Your task to perform on an android device: Clear the cart on ebay.com. Search for "dell alienware" on ebay.com, select the first entry, add it to the cart, then select checkout. Image 0: 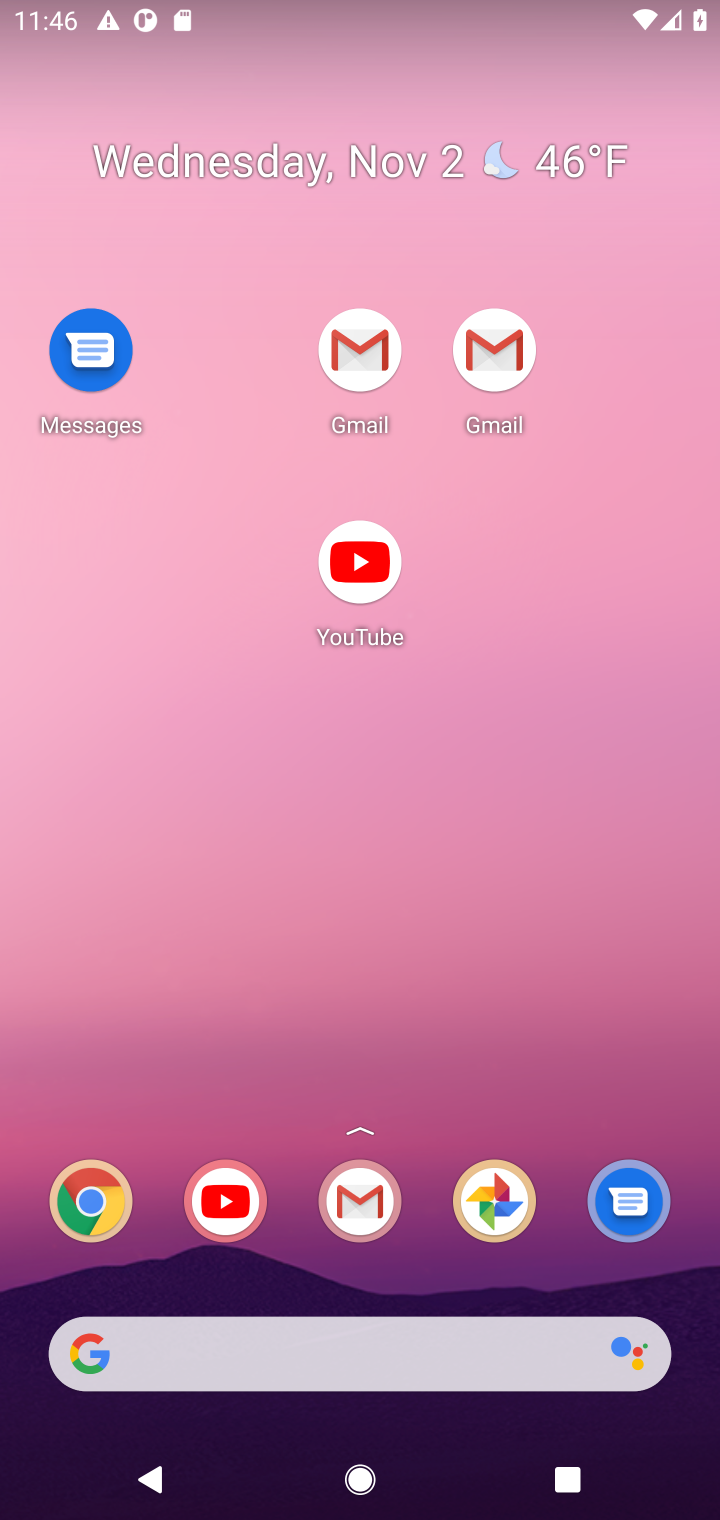
Step 0: drag from (432, 1223) to (448, 488)
Your task to perform on an android device: Clear the cart on ebay.com. Search for "dell alienware" on ebay.com, select the first entry, add it to the cart, then select checkout. Image 1: 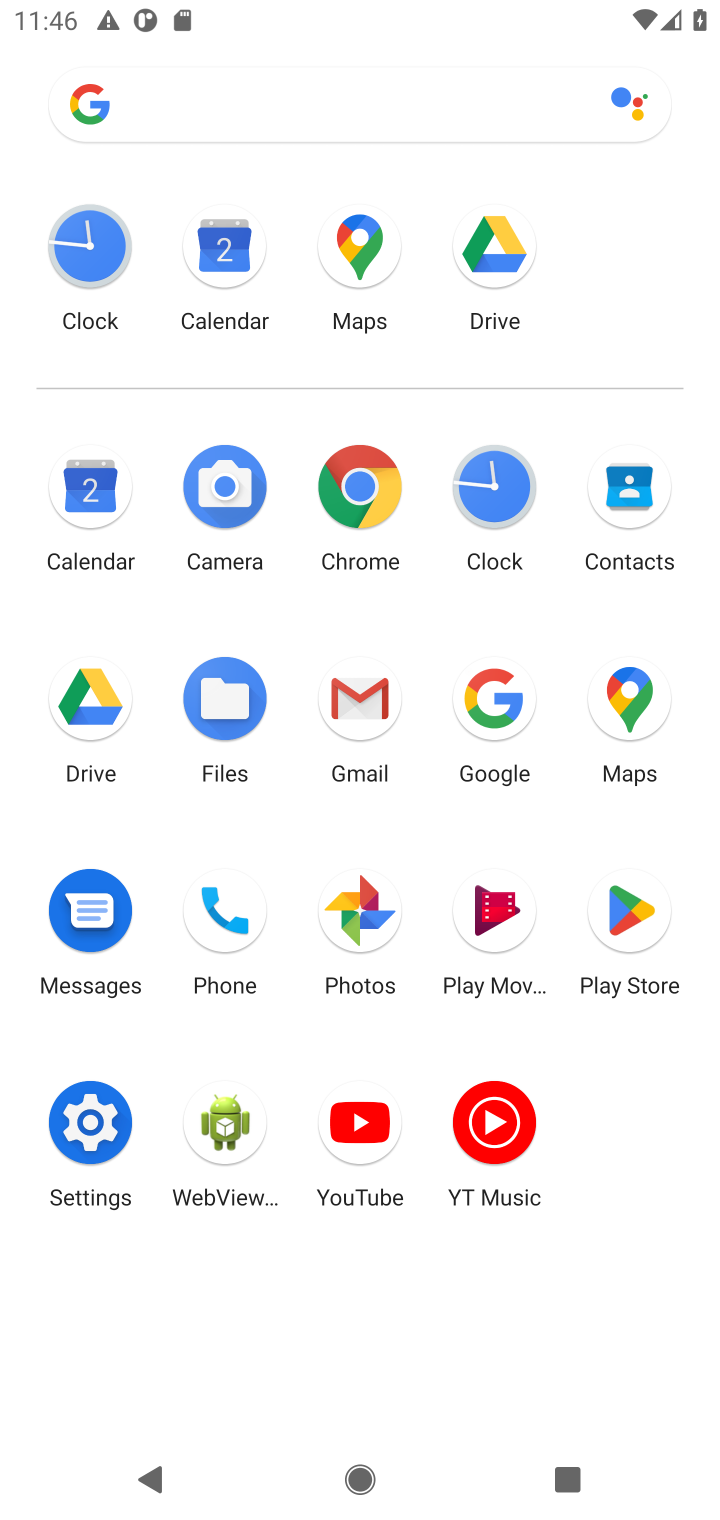
Step 1: click (350, 487)
Your task to perform on an android device: Clear the cart on ebay.com. Search for "dell alienware" on ebay.com, select the first entry, add it to the cart, then select checkout. Image 2: 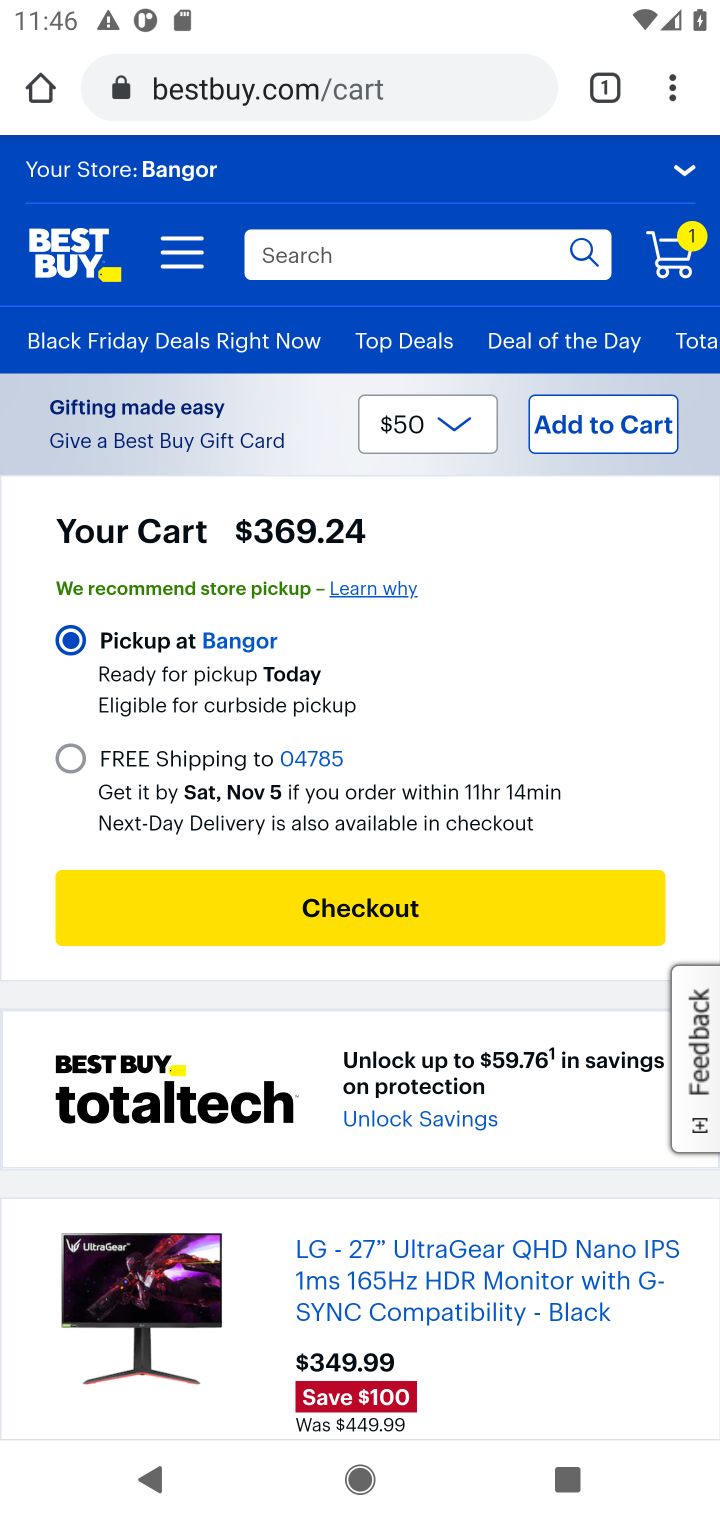
Step 2: click (389, 77)
Your task to perform on an android device: Clear the cart on ebay.com. Search for "dell alienware" on ebay.com, select the first entry, add it to the cart, then select checkout. Image 3: 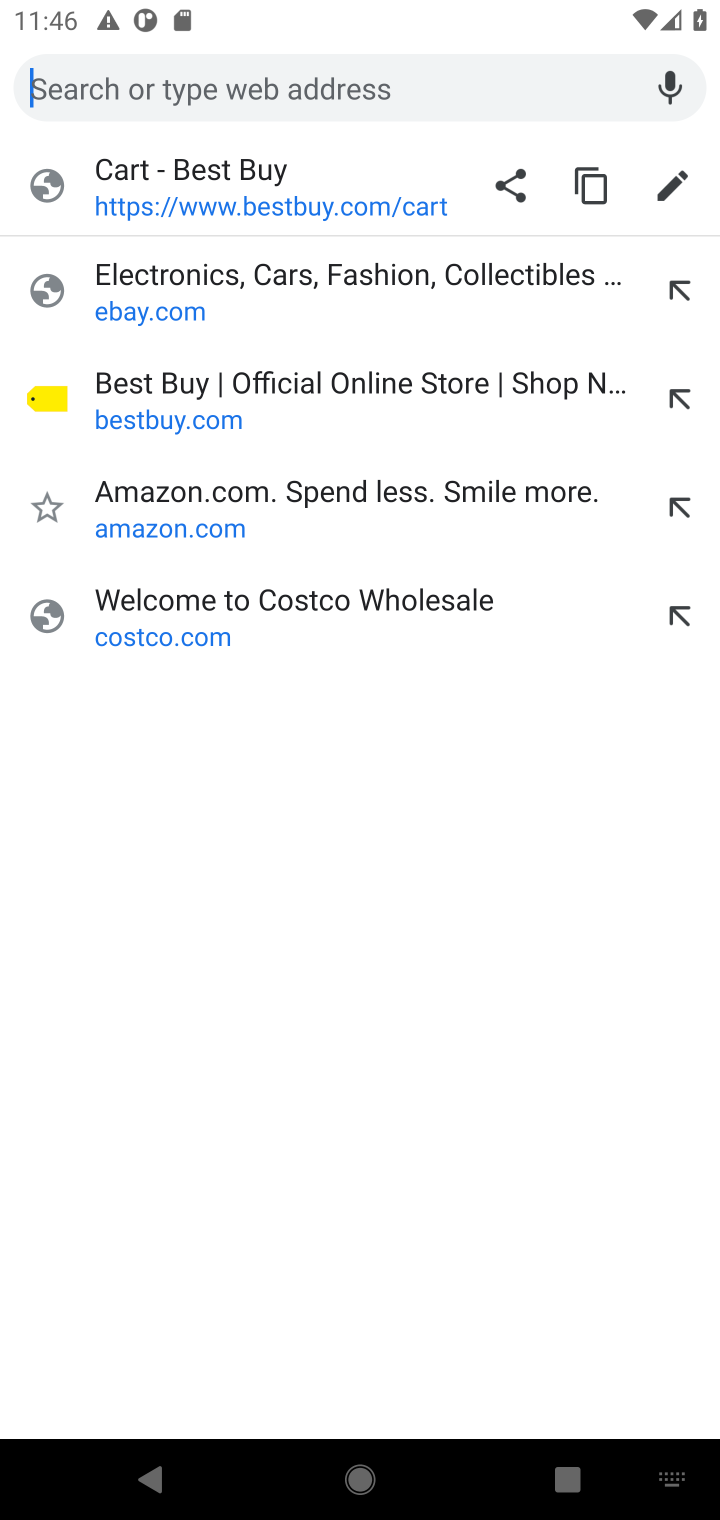
Step 3: type "ebay. om"
Your task to perform on an android device: Clear the cart on ebay.com. Search for "dell alienware" on ebay.com, select the first entry, add it to the cart, then select checkout. Image 4: 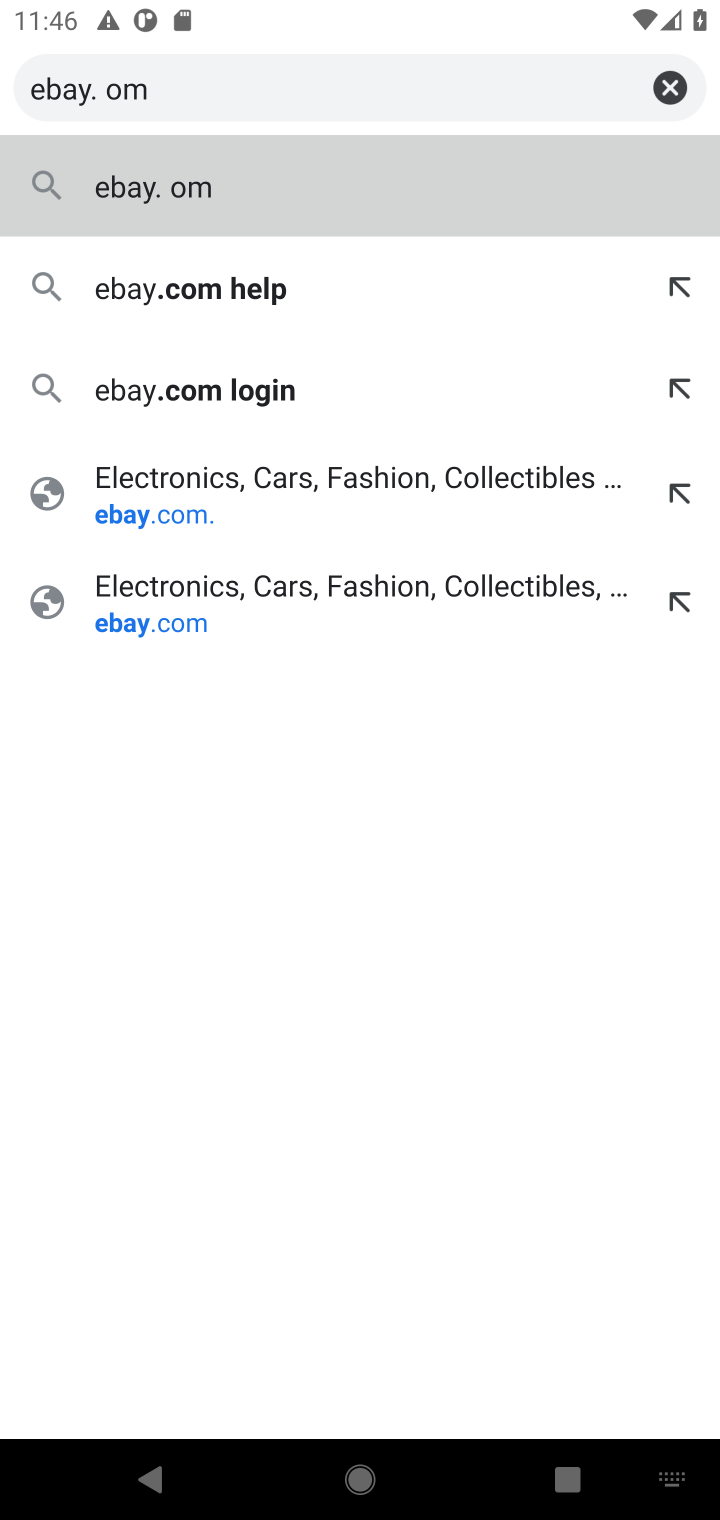
Step 4: press enter
Your task to perform on an android device: Clear the cart on ebay.com. Search for "dell alienware" on ebay.com, select the first entry, add it to the cart, then select checkout. Image 5: 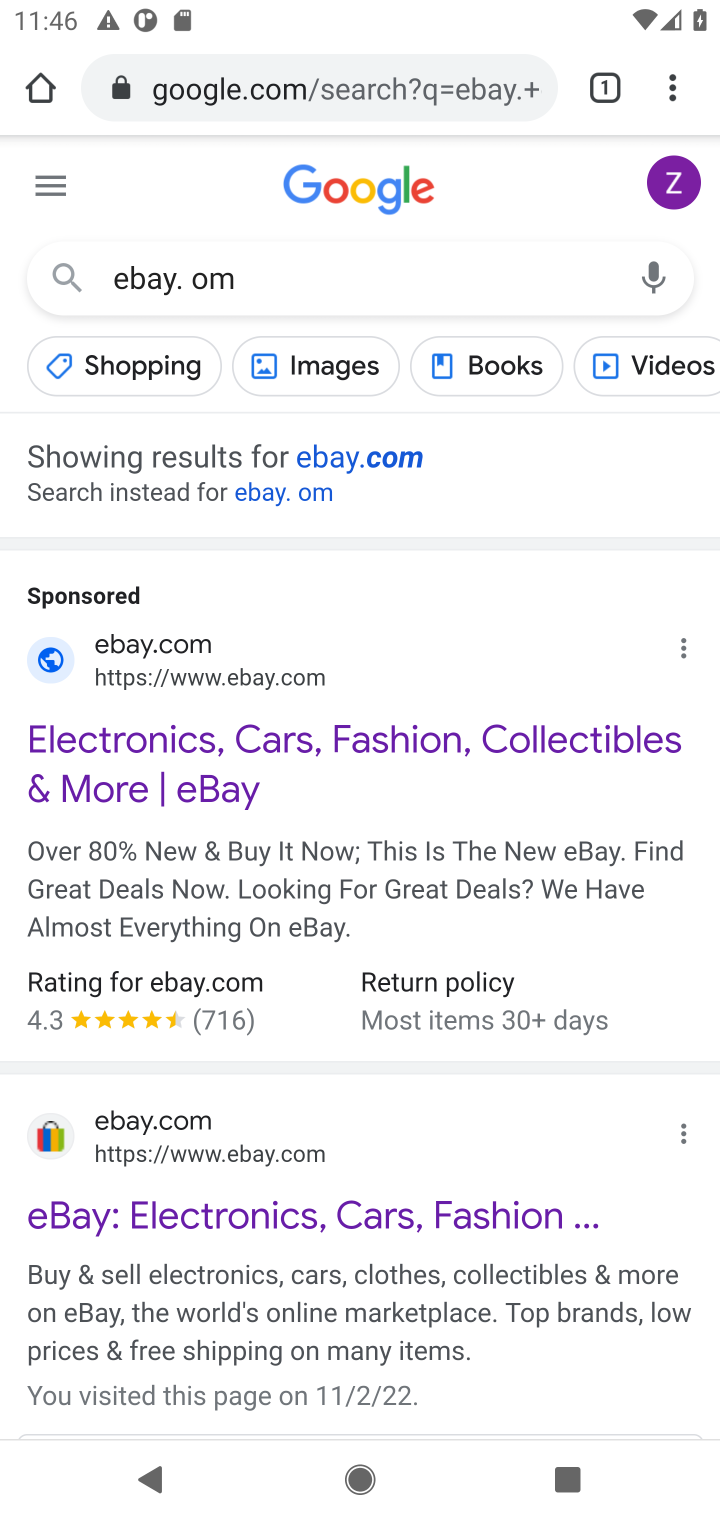
Step 5: click (291, 1220)
Your task to perform on an android device: Clear the cart on ebay.com. Search for "dell alienware" on ebay.com, select the first entry, add it to the cart, then select checkout. Image 6: 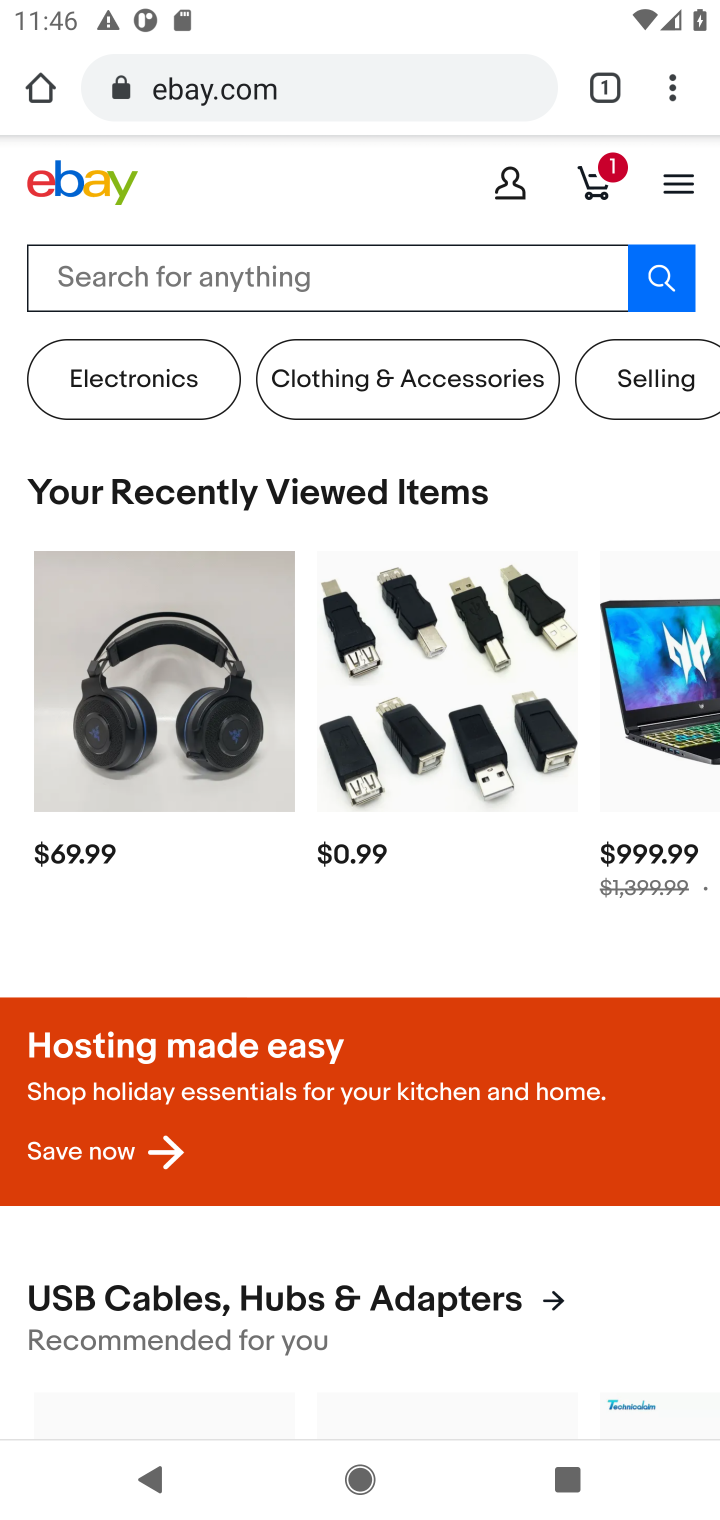
Step 6: click (387, 283)
Your task to perform on an android device: Clear the cart on ebay.com. Search for "dell alienware" on ebay.com, select the first entry, add it to the cart, then select checkout. Image 7: 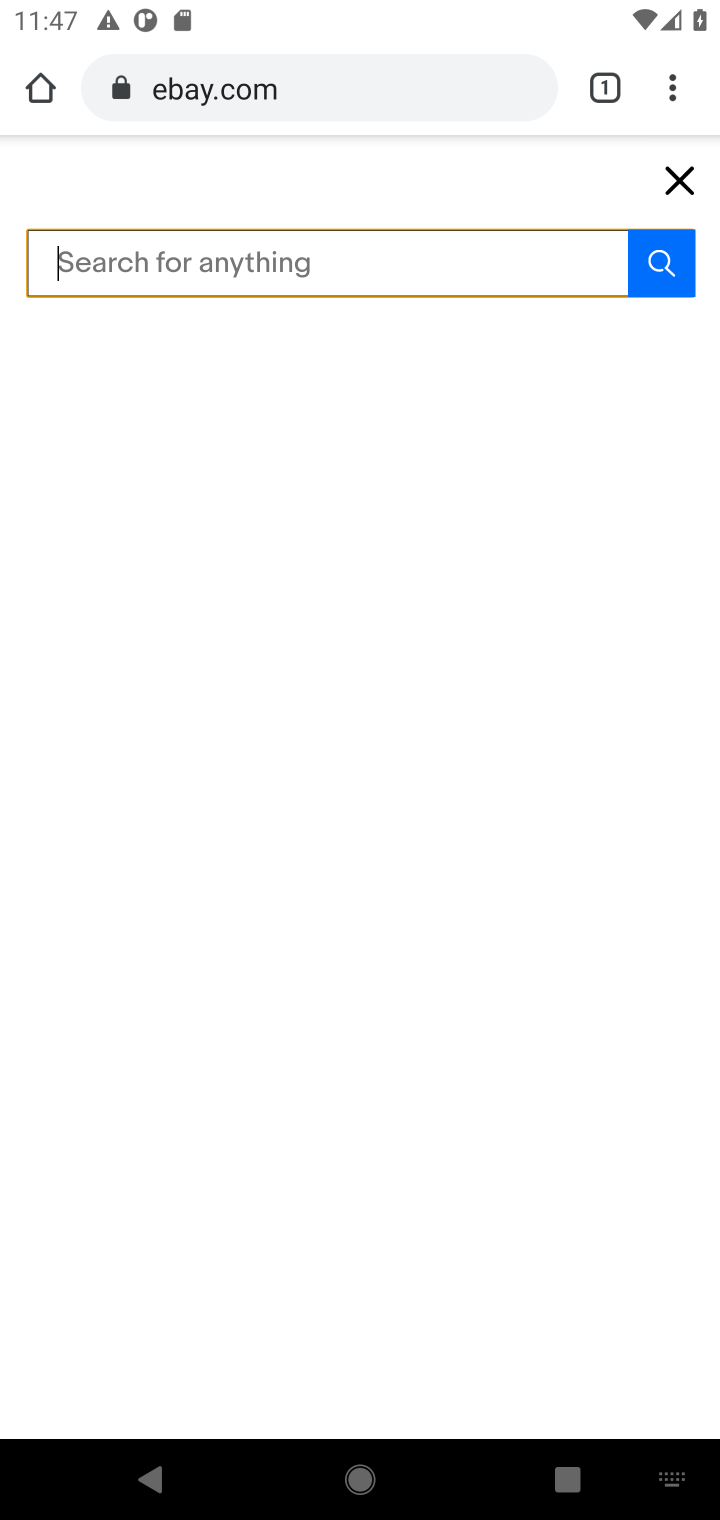
Step 7: click (687, 174)
Your task to perform on an android device: Clear the cart on ebay.com. Search for "dell alienware" on ebay.com, select the first entry, add it to the cart, then select checkout. Image 8: 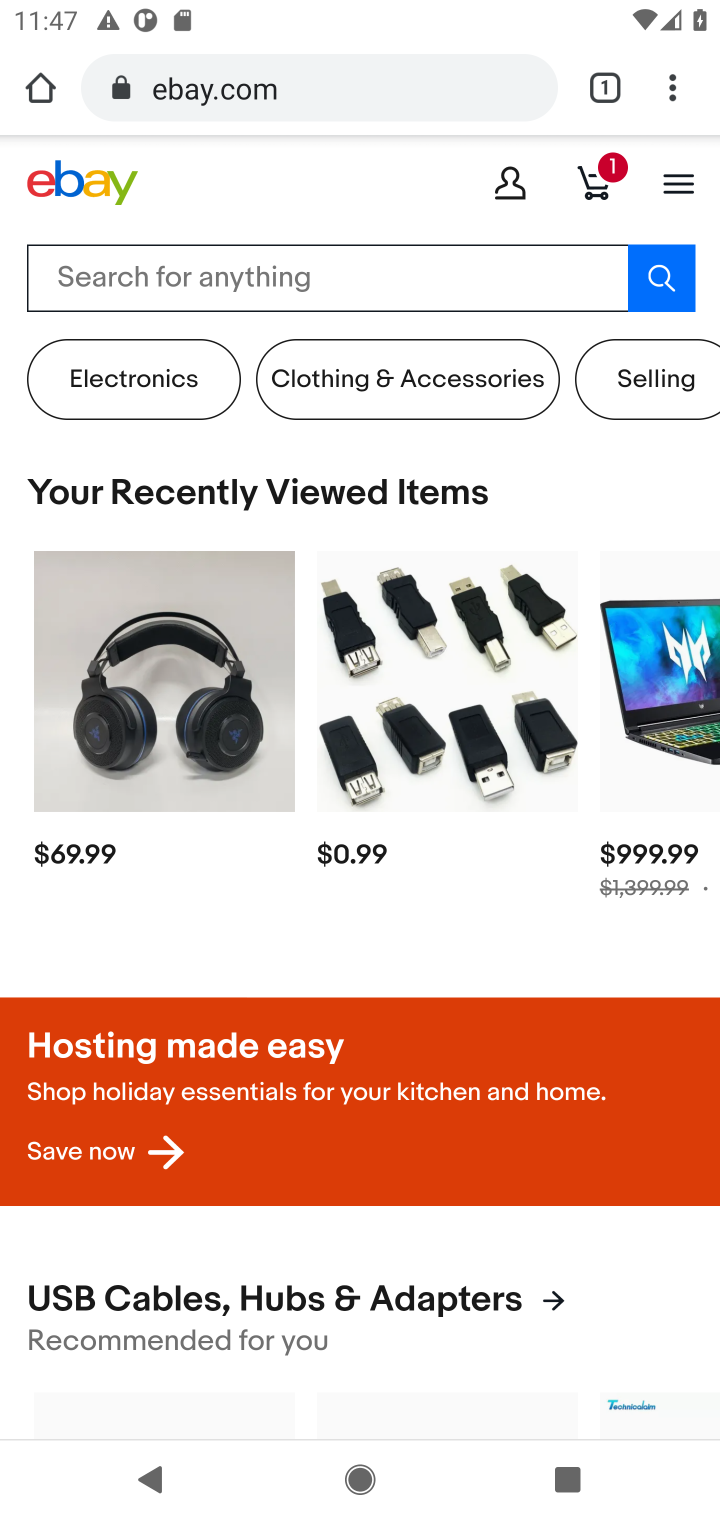
Step 8: click (604, 179)
Your task to perform on an android device: Clear the cart on ebay.com. Search for "dell alienware" on ebay.com, select the first entry, add it to the cart, then select checkout. Image 9: 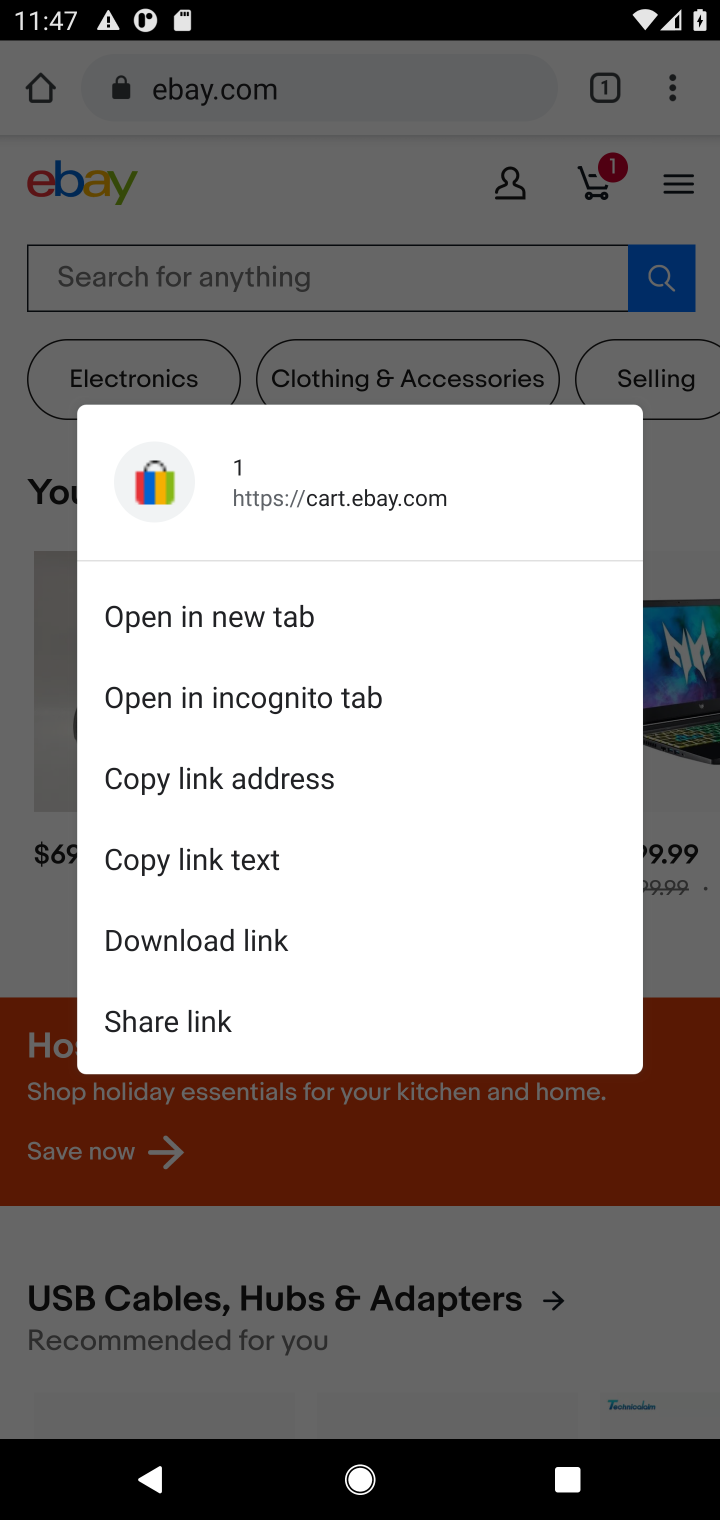
Step 9: click (604, 179)
Your task to perform on an android device: Clear the cart on ebay.com. Search for "dell alienware" on ebay.com, select the first entry, add it to the cart, then select checkout. Image 10: 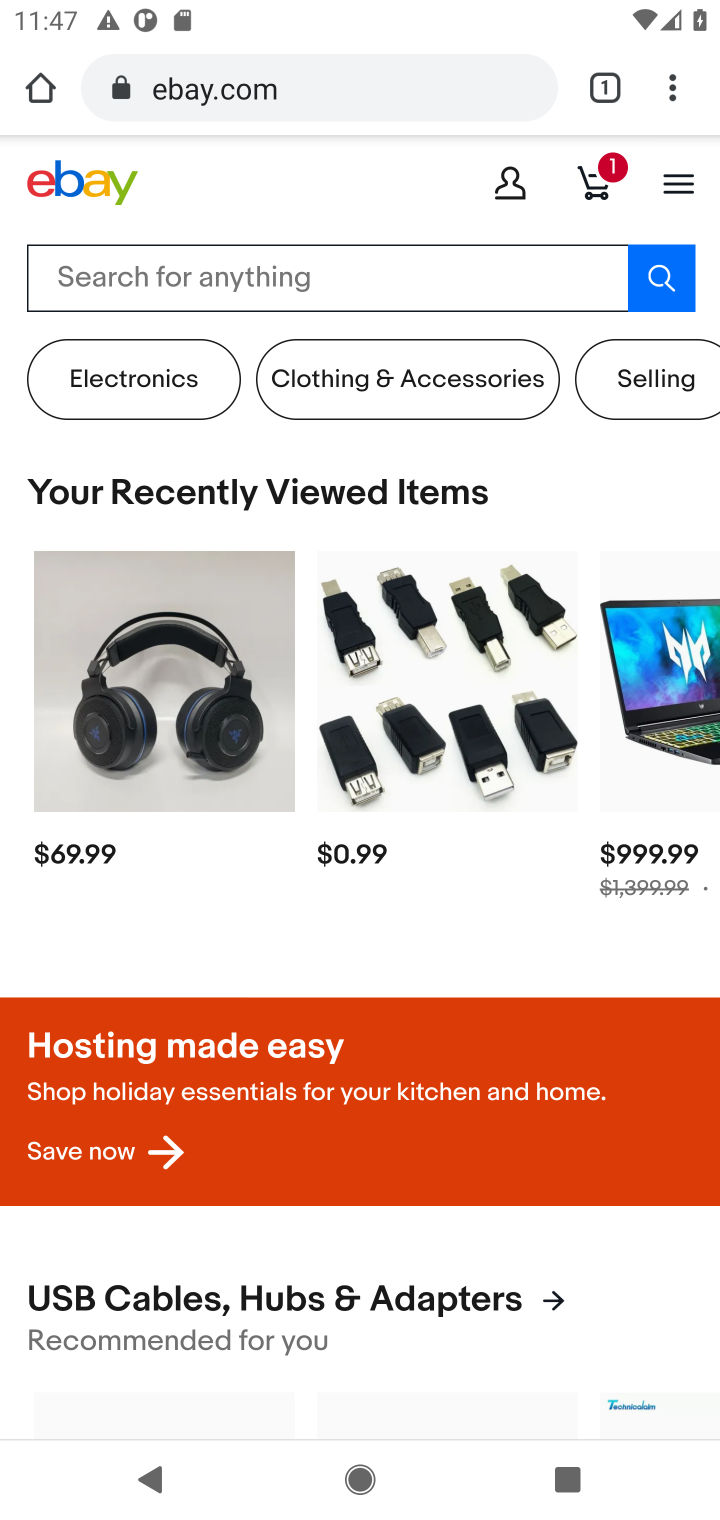
Step 10: click (604, 179)
Your task to perform on an android device: Clear the cart on ebay.com. Search for "dell alienware" on ebay.com, select the first entry, add it to the cart, then select checkout. Image 11: 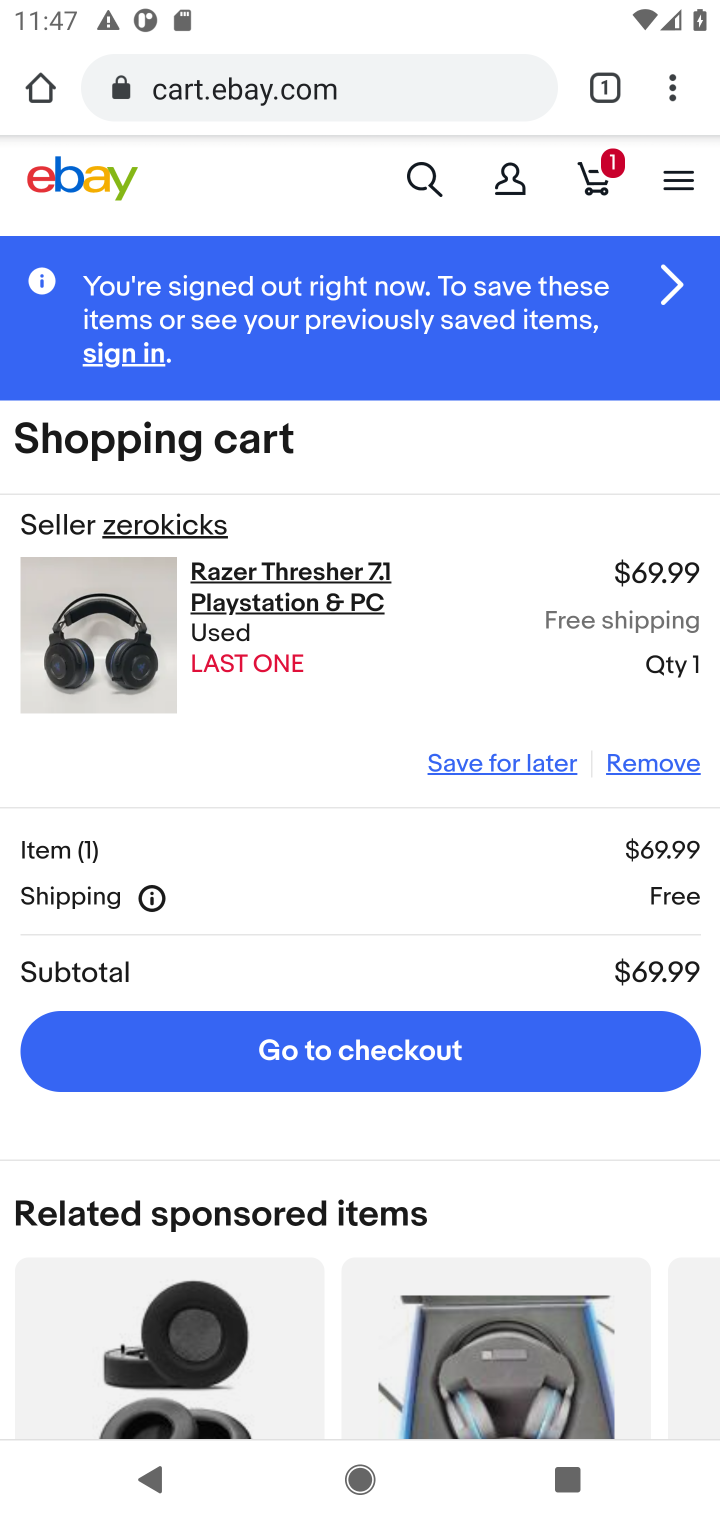
Step 11: click (654, 774)
Your task to perform on an android device: Clear the cart on ebay.com. Search for "dell alienware" on ebay.com, select the first entry, add it to the cart, then select checkout. Image 12: 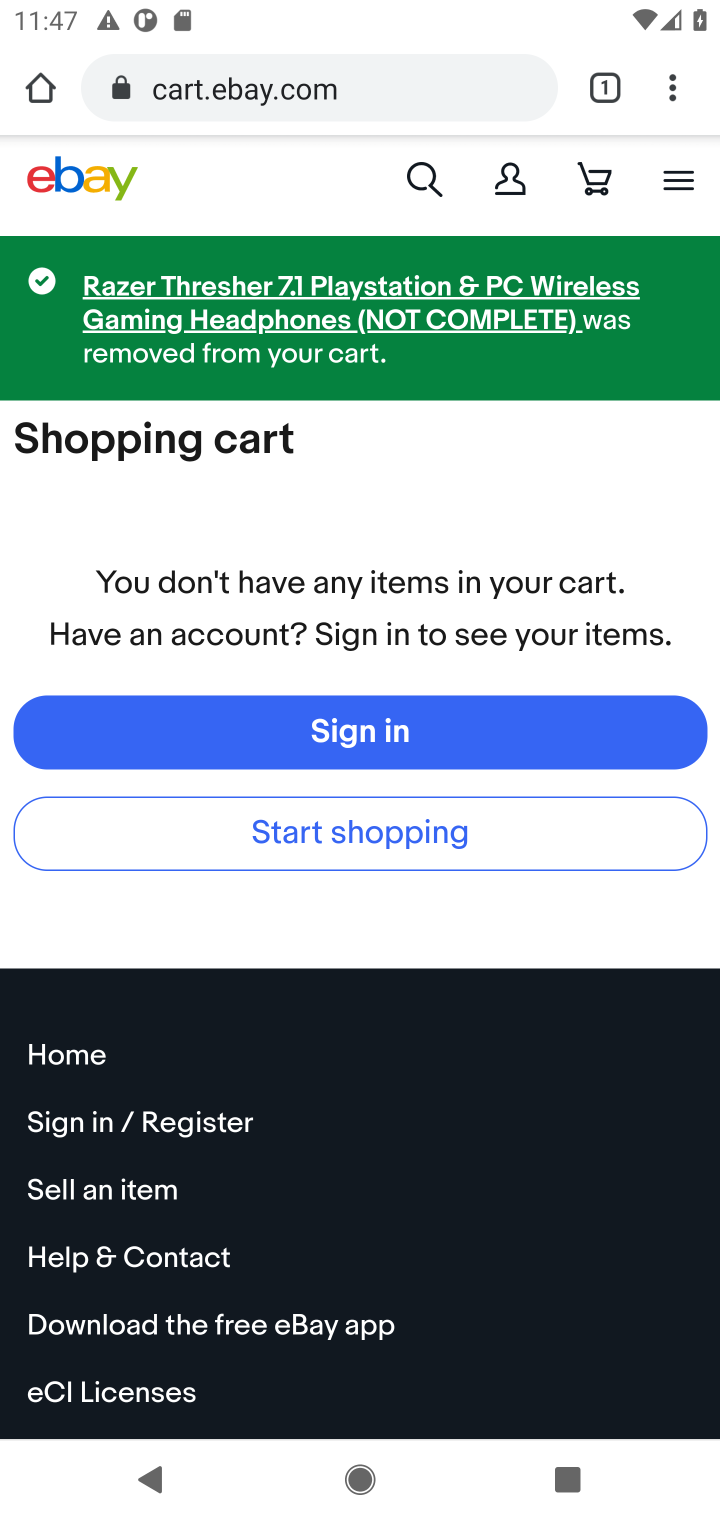
Step 12: click (416, 193)
Your task to perform on an android device: Clear the cart on ebay.com. Search for "dell alienware" on ebay.com, select the first entry, add it to the cart, then select checkout. Image 13: 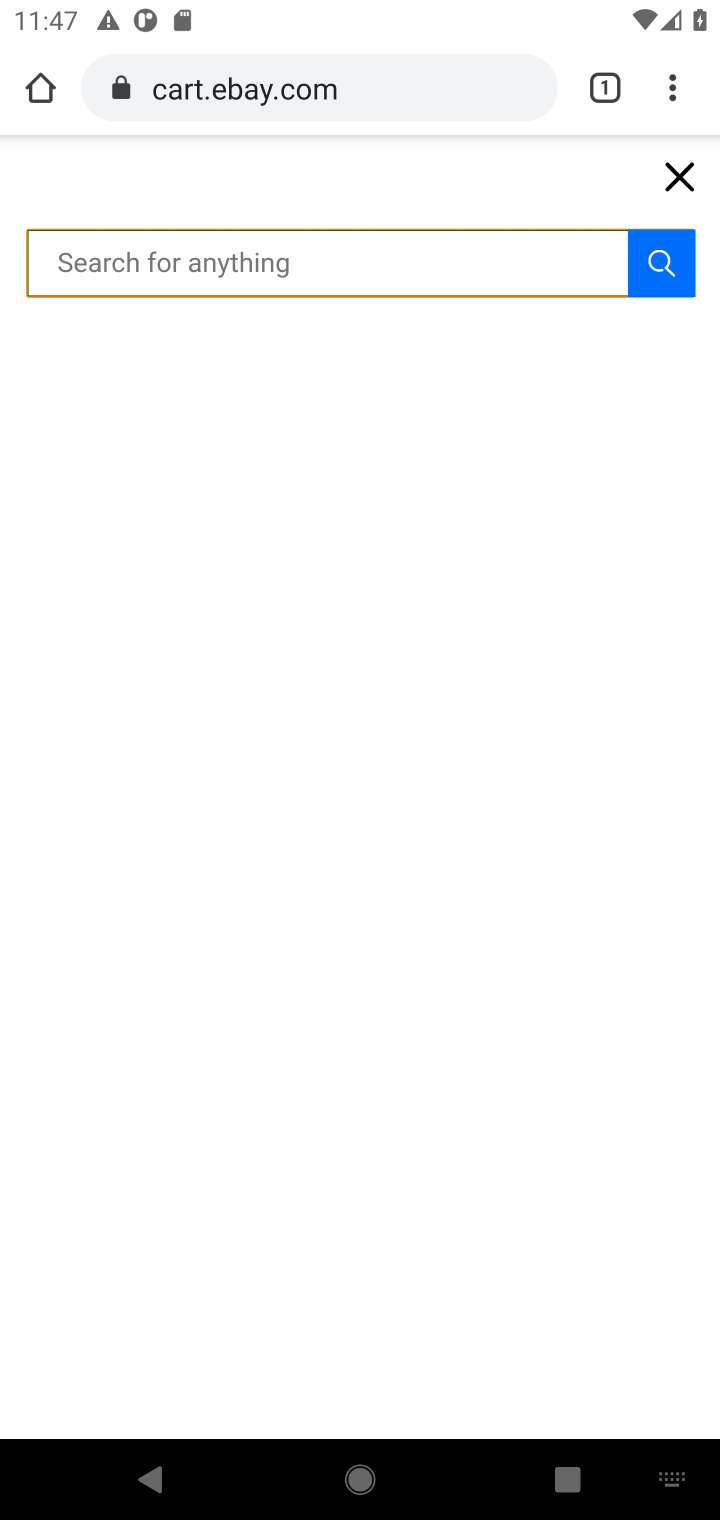
Step 13: type "dell alienware"
Your task to perform on an android device: Clear the cart on ebay.com. Search for "dell alienware" on ebay.com, select the first entry, add it to the cart, then select checkout. Image 14: 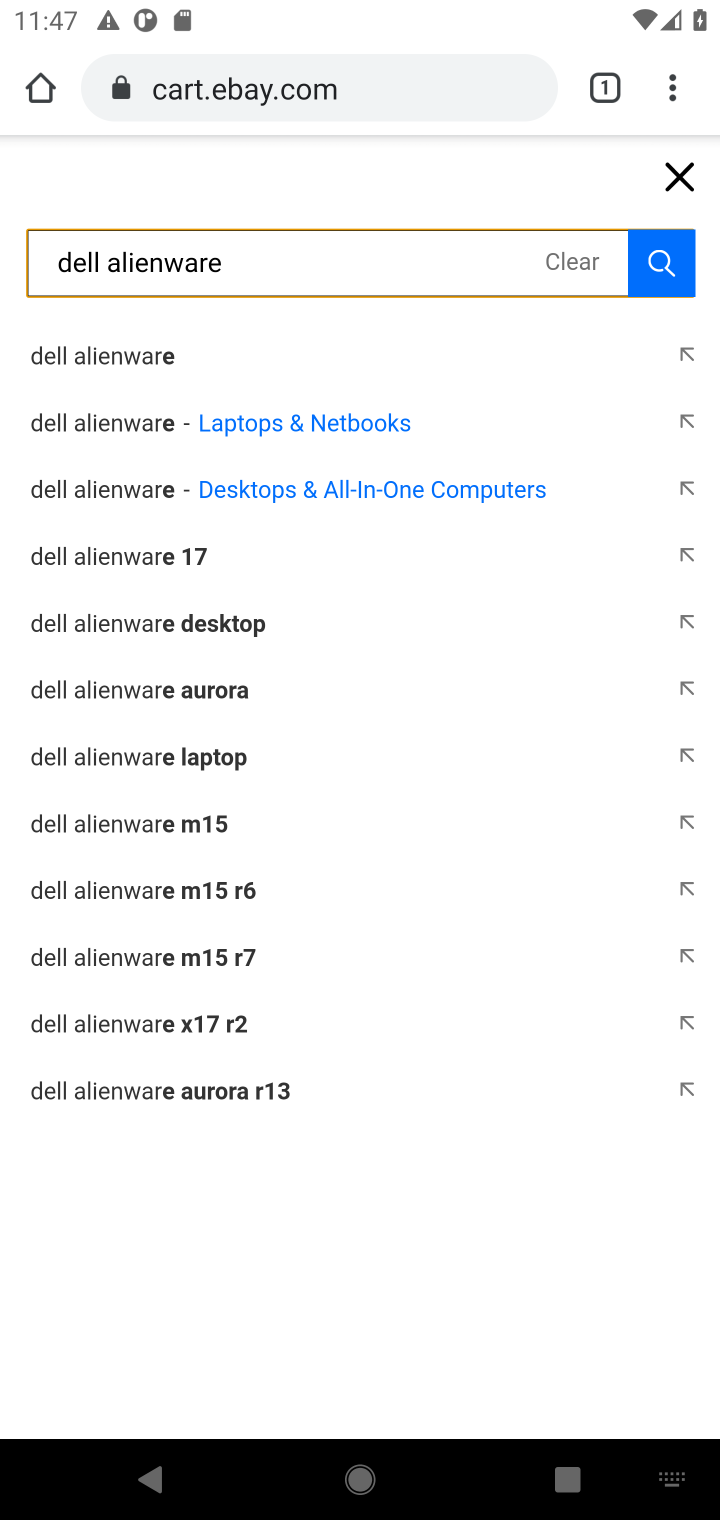
Step 14: press enter
Your task to perform on an android device: Clear the cart on ebay.com. Search for "dell alienware" on ebay.com, select the first entry, add it to the cart, then select checkout. Image 15: 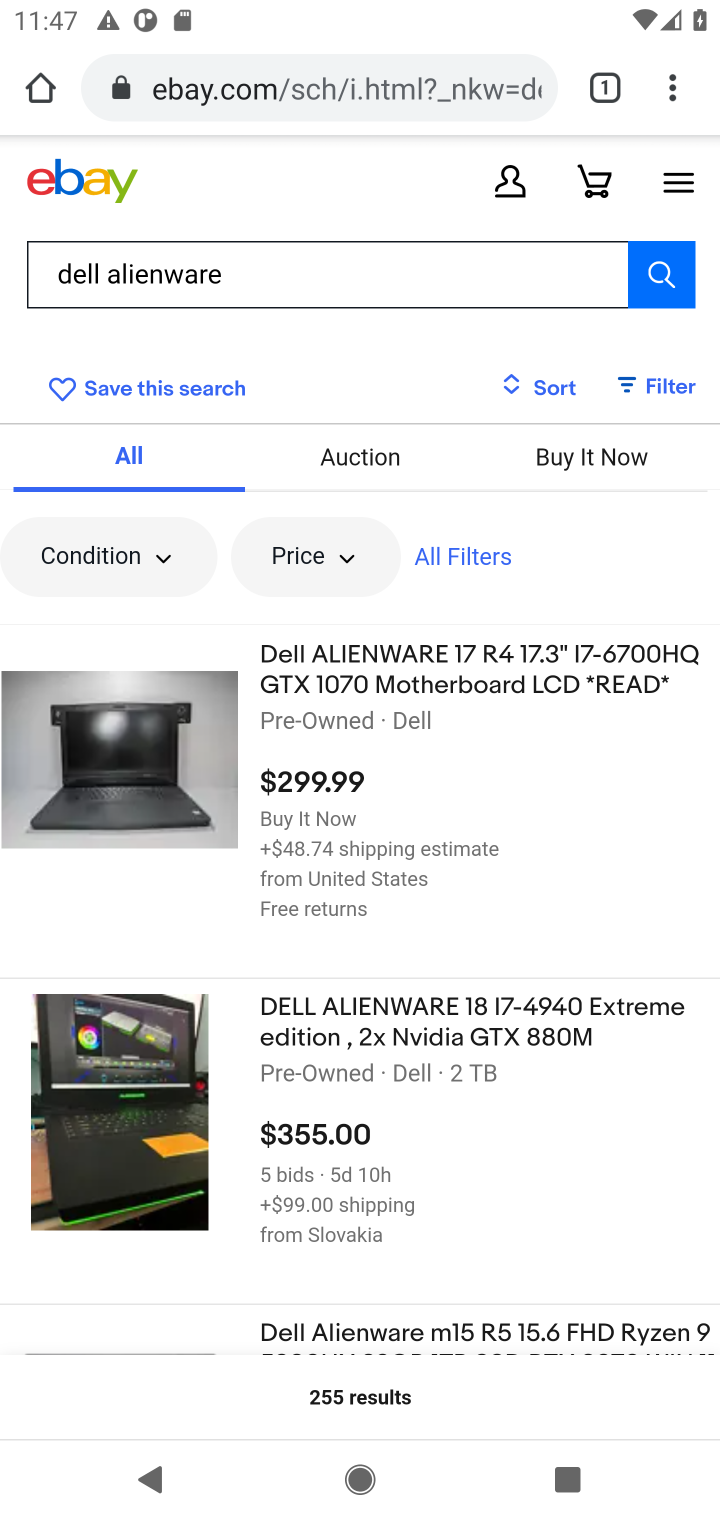
Step 15: click (171, 762)
Your task to perform on an android device: Clear the cart on ebay.com. Search for "dell alienware" on ebay.com, select the first entry, add it to the cart, then select checkout. Image 16: 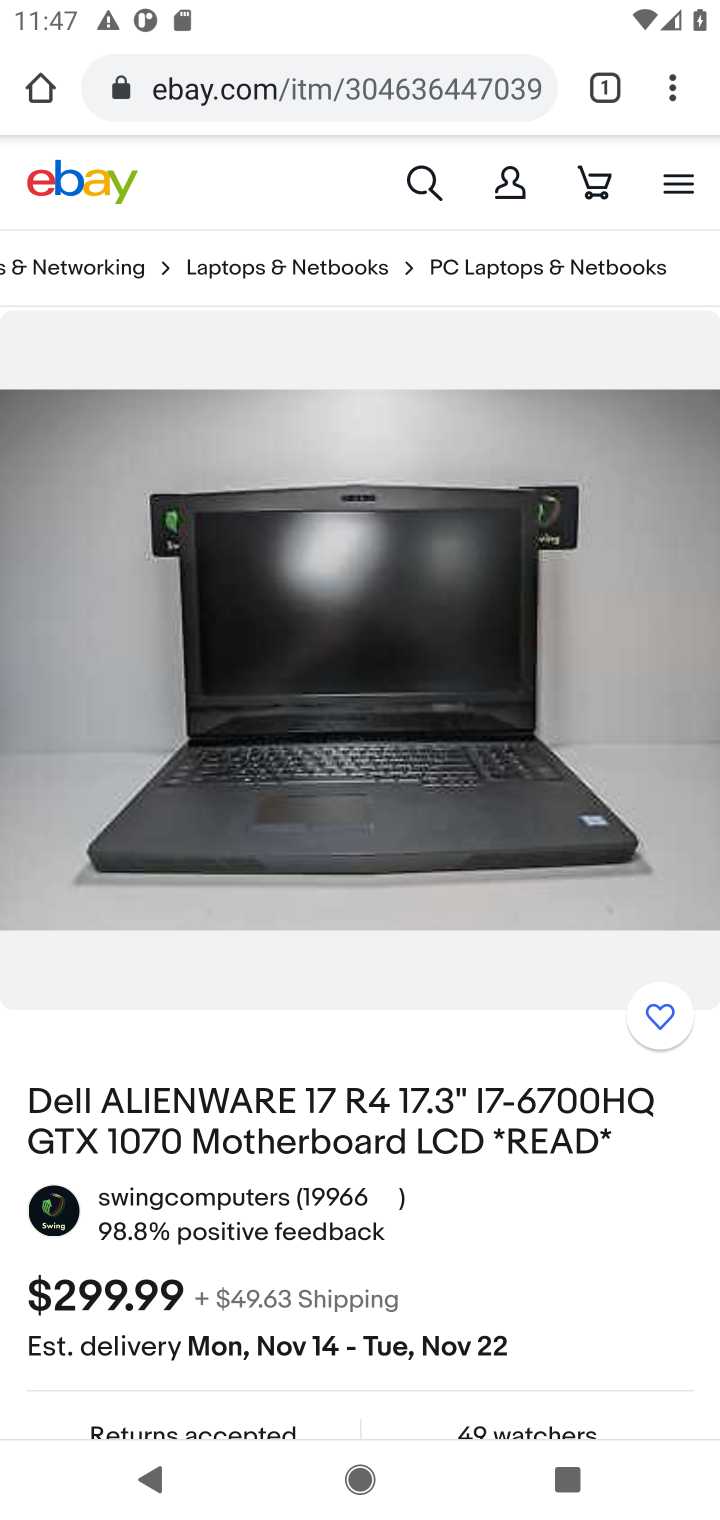
Step 16: drag from (469, 1248) to (406, 622)
Your task to perform on an android device: Clear the cart on ebay.com. Search for "dell alienware" on ebay.com, select the first entry, add it to the cart, then select checkout. Image 17: 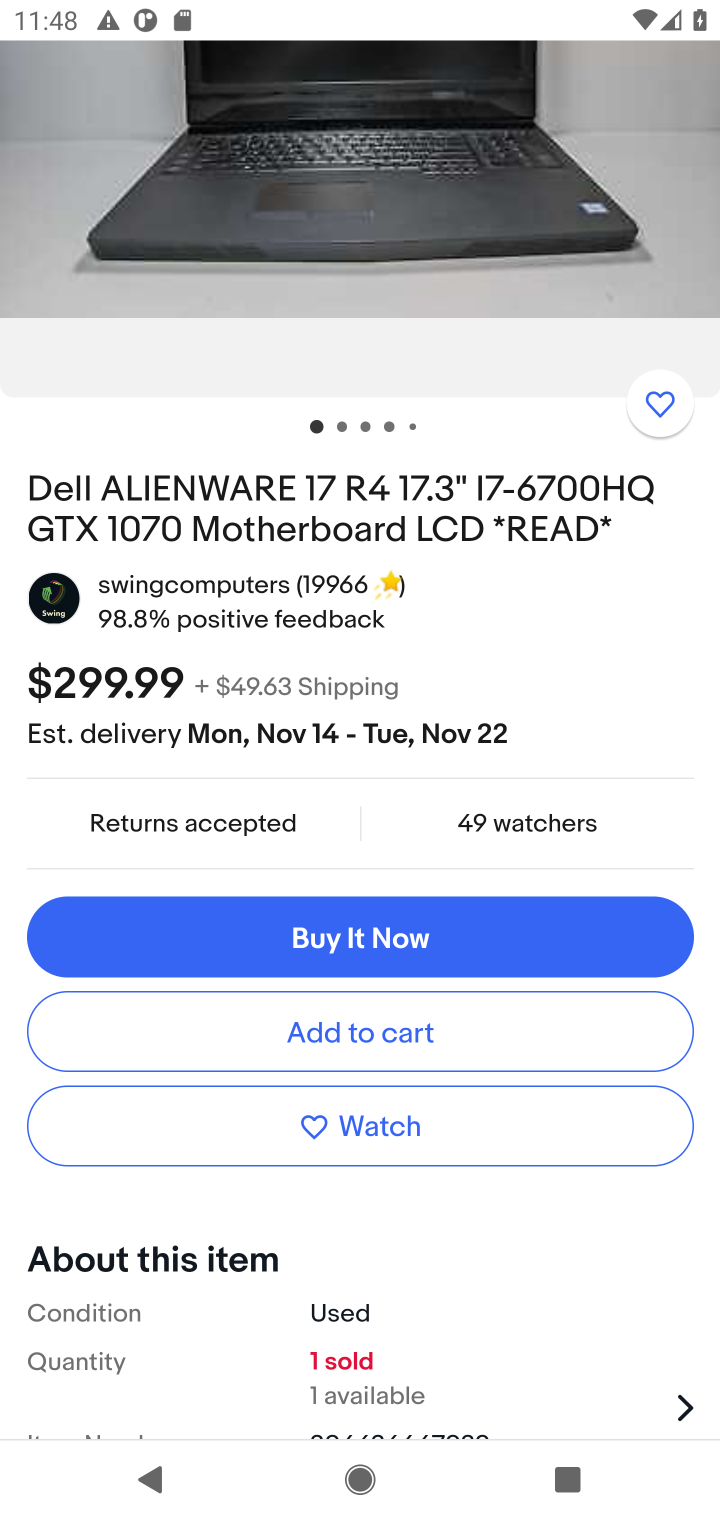
Step 17: click (352, 1040)
Your task to perform on an android device: Clear the cart on ebay.com. Search for "dell alienware" on ebay.com, select the first entry, add it to the cart, then select checkout. Image 18: 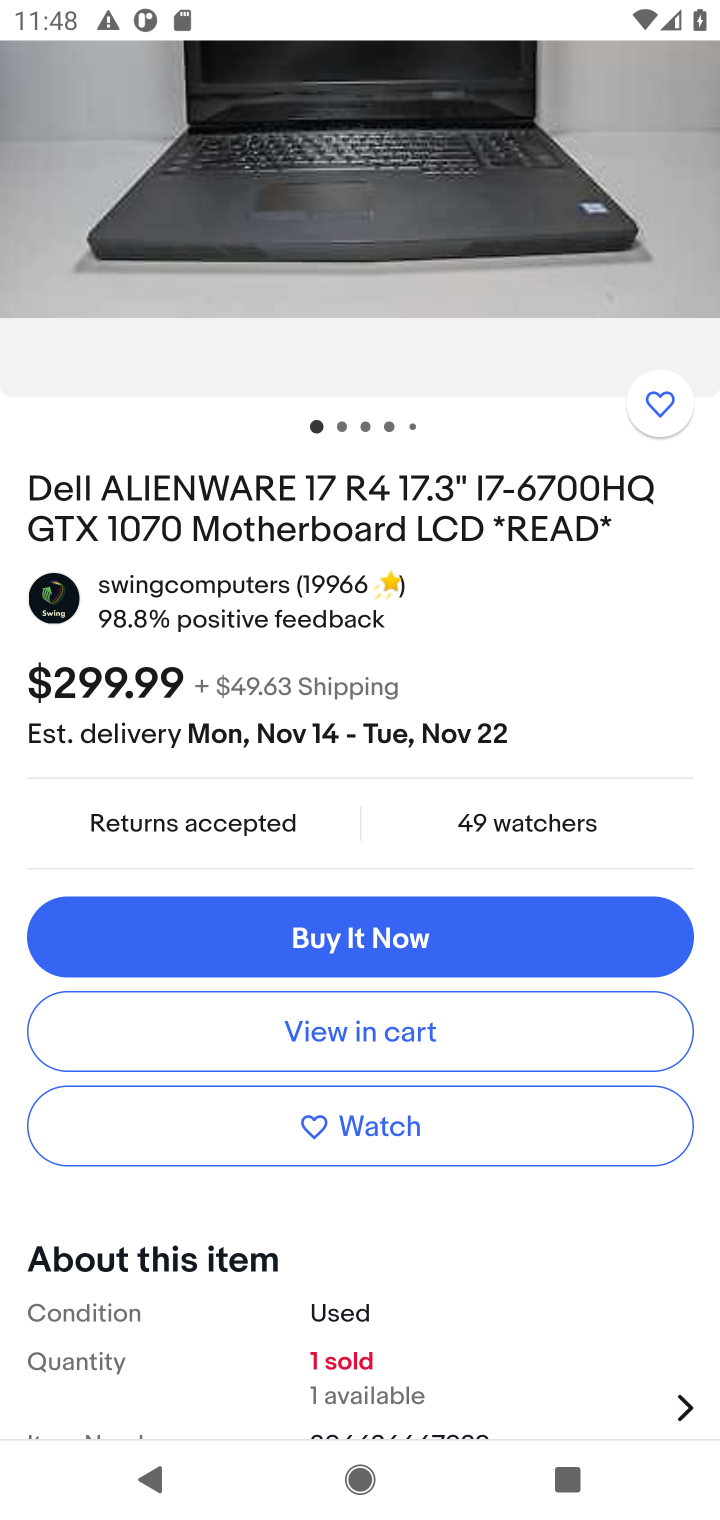
Step 18: task complete